Your task to perform on an android device: Check the news Image 0: 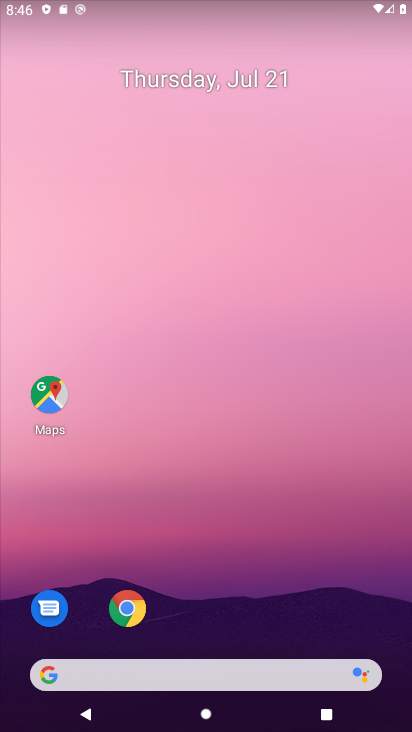
Step 0: click (119, 608)
Your task to perform on an android device: Check the news Image 1: 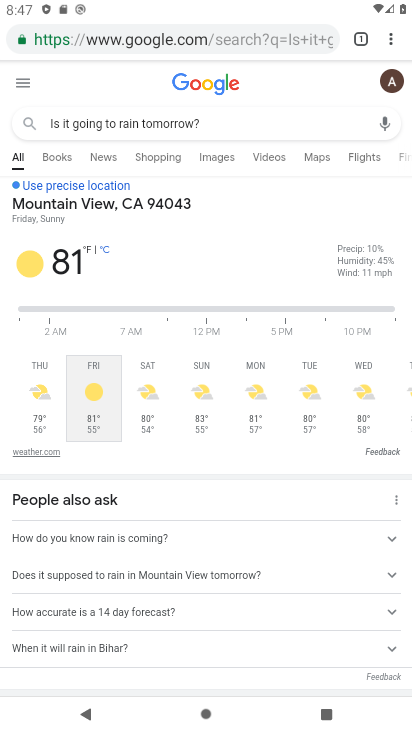
Step 1: click (254, 121)
Your task to perform on an android device: Check the news Image 2: 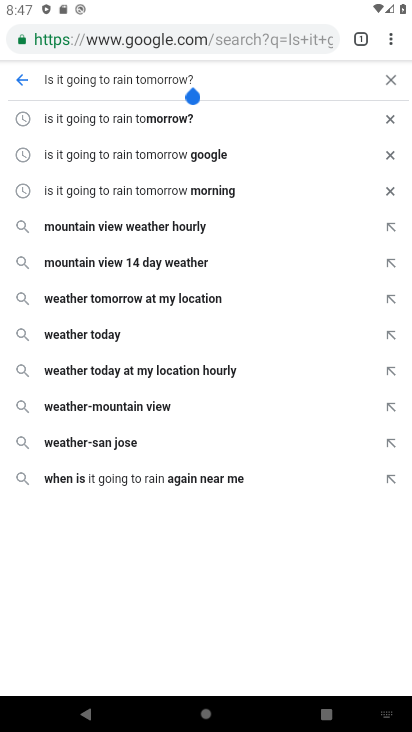
Step 2: click (395, 82)
Your task to perform on an android device: Check the news Image 3: 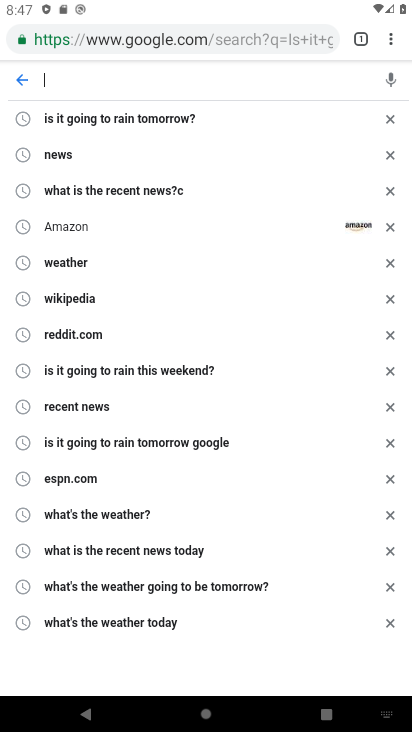
Step 3: click (225, 160)
Your task to perform on an android device: Check the news Image 4: 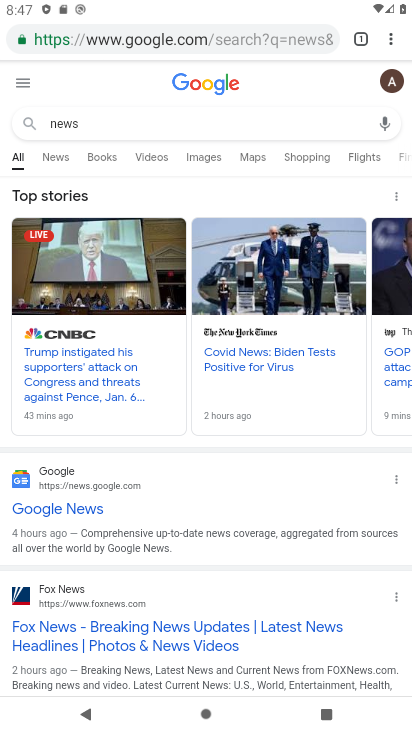
Step 4: task complete